Your task to perform on an android device: Open Yahoo.com Image 0: 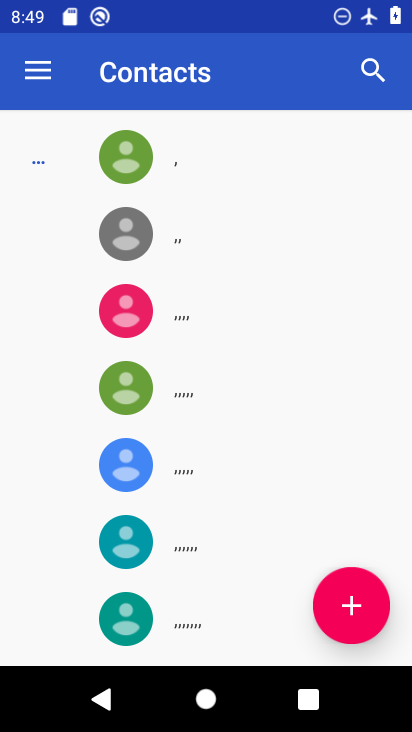
Step 0: press home button
Your task to perform on an android device: Open Yahoo.com Image 1: 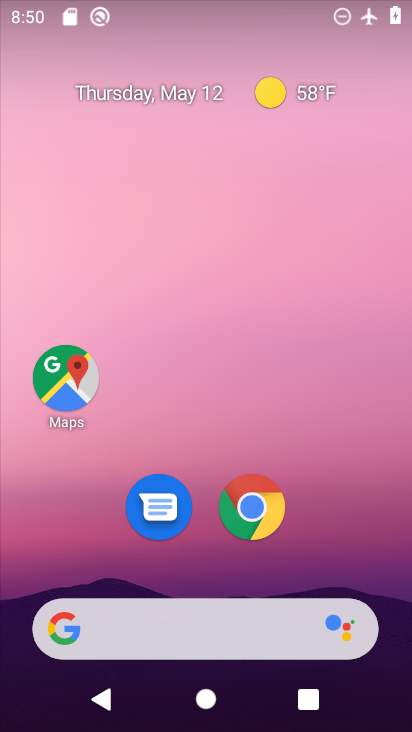
Step 1: click (251, 504)
Your task to perform on an android device: Open Yahoo.com Image 2: 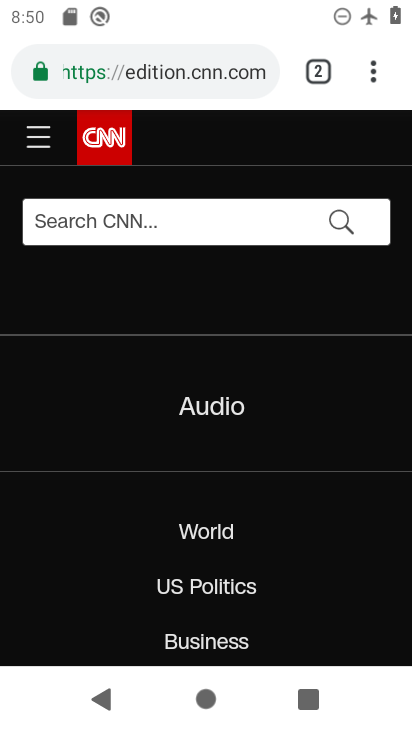
Step 2: click (324, 81)
Your task to perform on an android device: Open Yahoo.com Image 3: 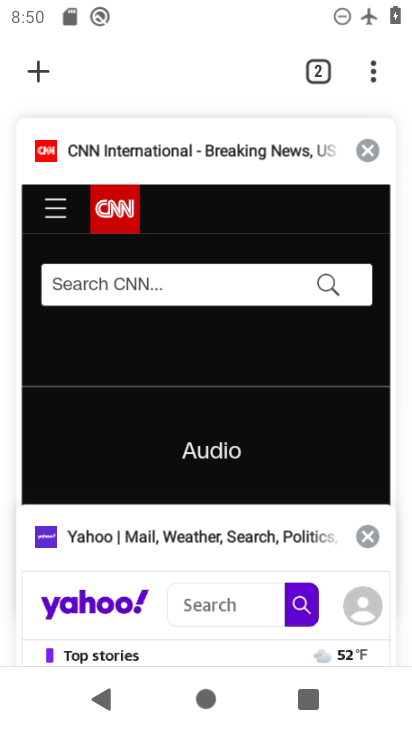
Step 3: click (124, 586)
Your task to perform on an android device: Open Yahoo.com Image 4: 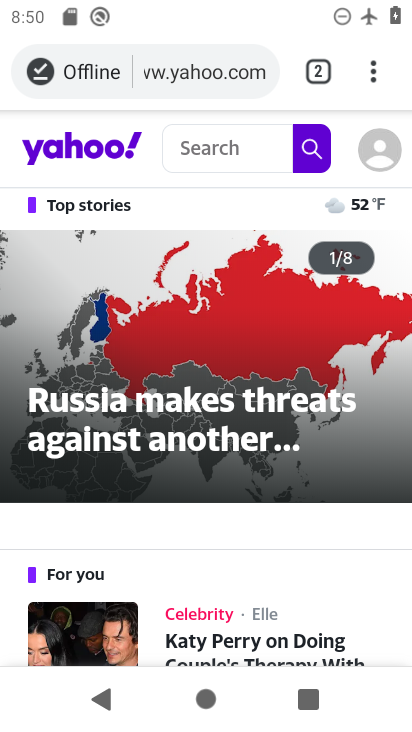
Step 4: task complete